Your task to perform on an android device: allow cookies in the chrome app Image 0: 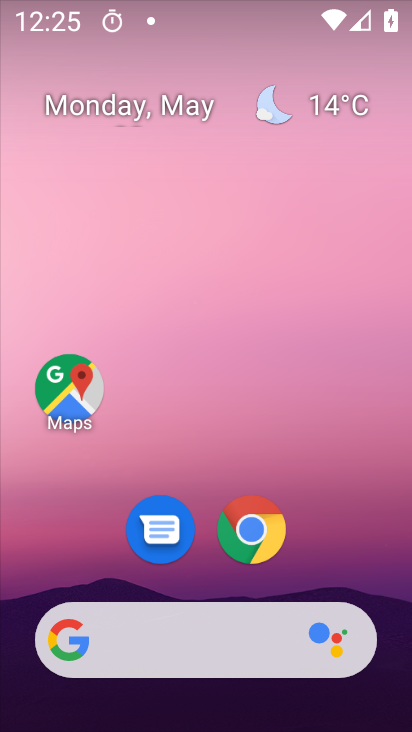
Step 0: drag from (386, 594) to (361, 229)
Your task to perform on an android device: allow cookies in the chrome app Image 1: 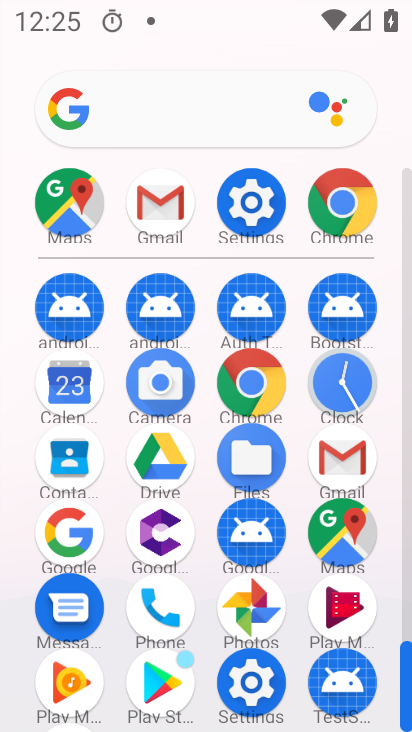
Step 1: click (253, 215)
Your task to perform on an android device: allow cookies in the chrome app Image 2: 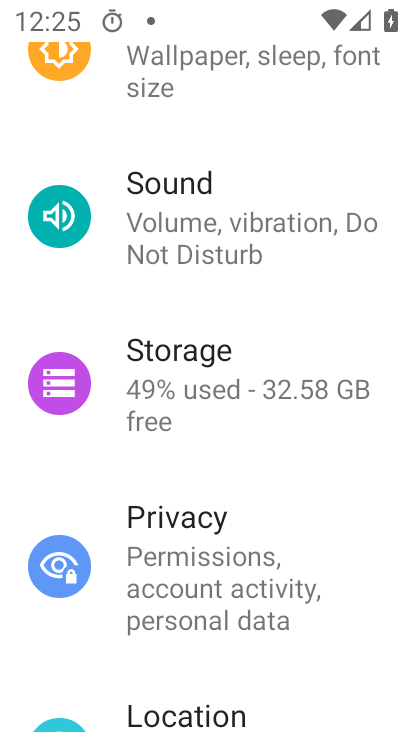
Step 2: drag from (344, 291) to (346, 391)
Your task to perform on an android device: allow cookies in the chrome app Image 3: 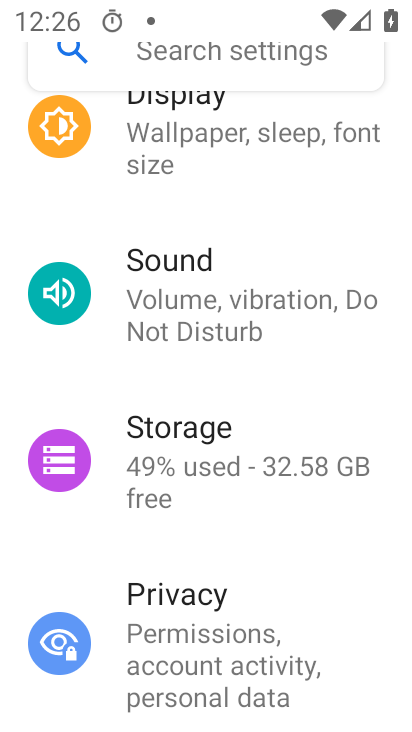
Step 3: drag from (348, 219) to (345, 346)
Your task to perform on an android device: allow cookies in the chrome app Image 4: 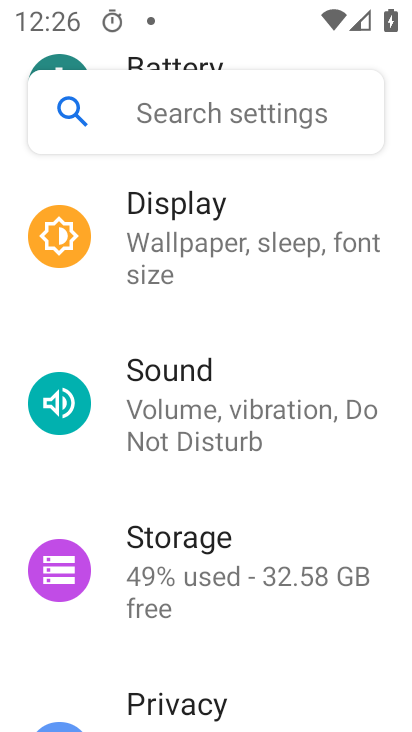
Step 4: drag from (368, 191) to (364, 328)
Your task to perform on an android device: allow cookies in the chrome app Image 5: 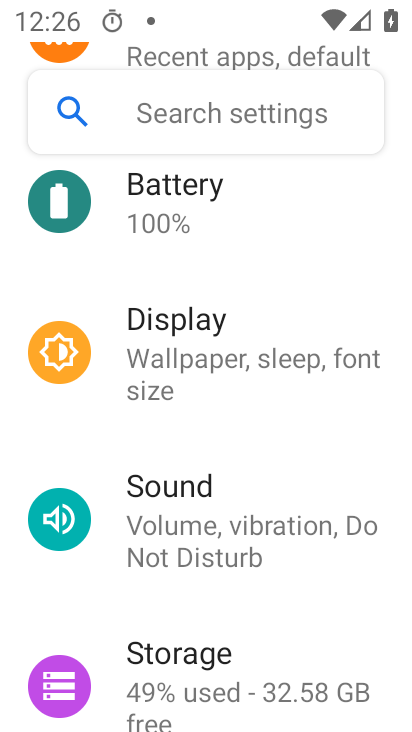
Step 5: drag from (357, 199) to (347, 333)
Your task to perform on an android device: allow cookies in the chrome app Image 6: 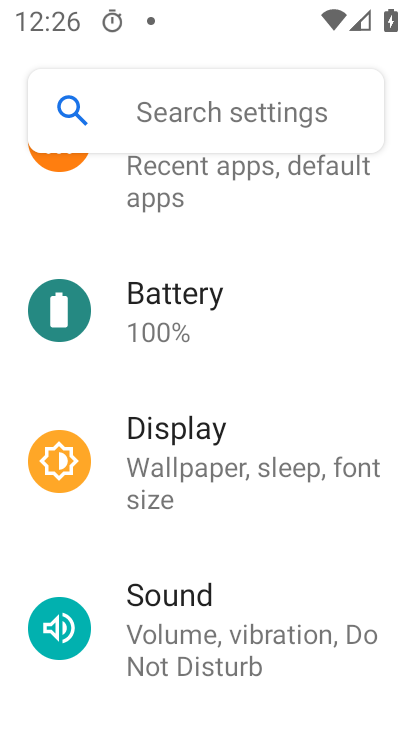
Step 6: press back button
Your task to perform on an android device: allow cookies in the chrome app Image 7: 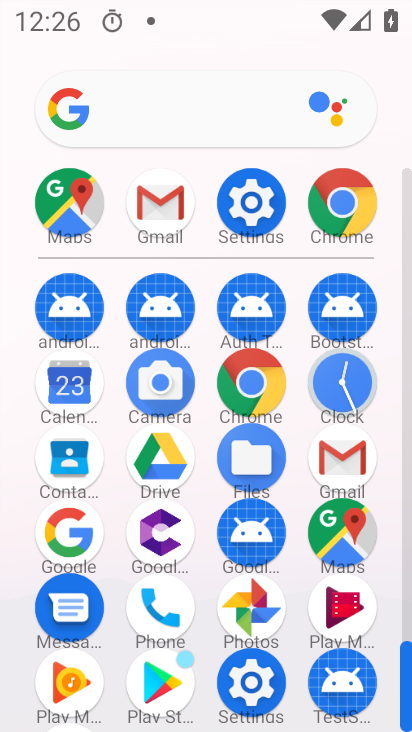
Step 7: click (277, 383)
Your task to perform on an android device: allow cookies in the chrome app Image 8: 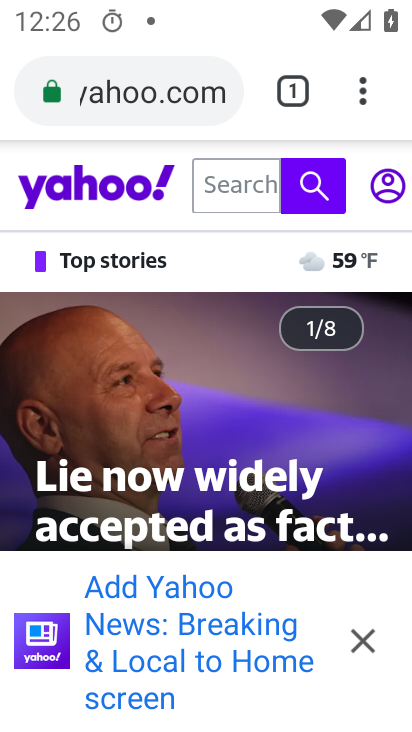
Step 8: click (363, 102)
Your task to perform on an android device: allow cookies in the chrome app Image 9: 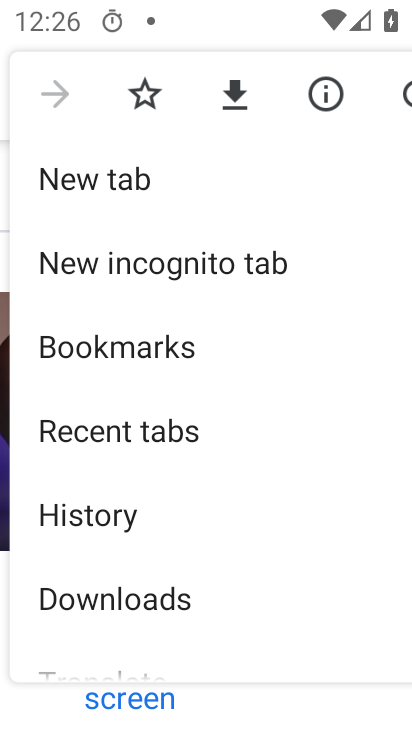
Step 9: drag from (317, 418) to (322, 333)
Your task to perform on an android device: allow cookies in the chrome app Image 10: 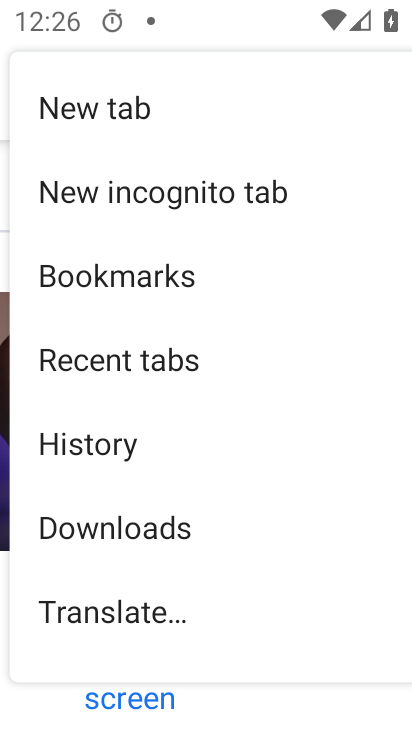
Step 10: drag from (306, 471) to (310, 365)
Your task to perform on an android device: allow cookies in the chrome app Image 11: 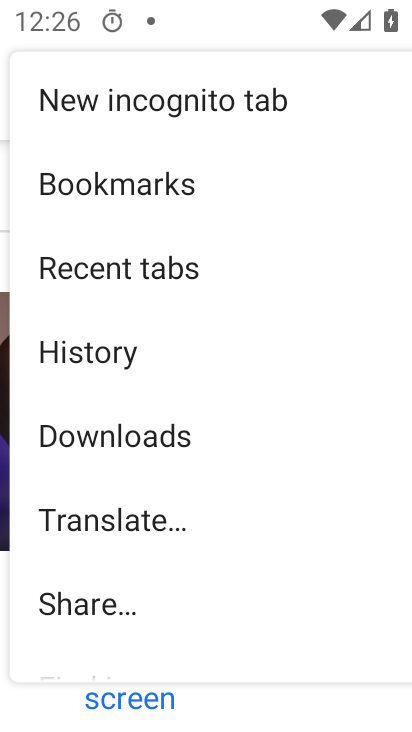
Step 11: drag from (301, 489) to (309, 362)
Your task to perform on an android device: allow cookies in the chrome app Image 12: 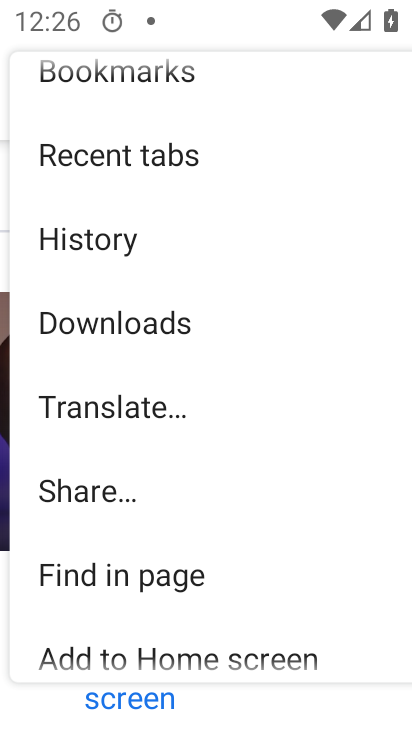
Step 12: drag from (326, 505) to (321, 346)
Your task to perform on an android device: allow cookies in the chrome app Image 13: 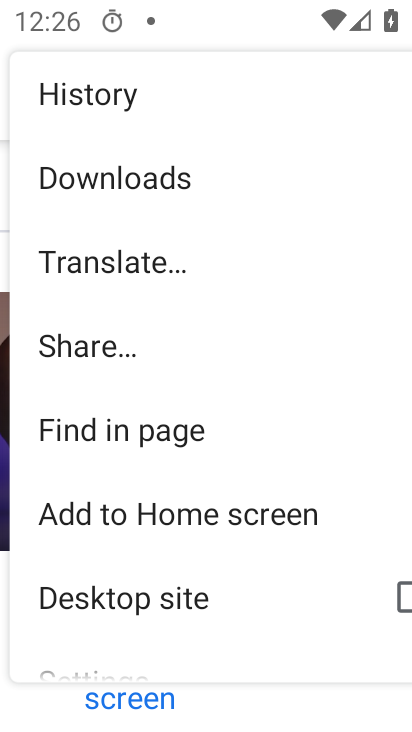
Step 13: drag from (315, 478) to (311, 313)
Your task to perform on an android device: allow cookies in the chrome app Image 14: 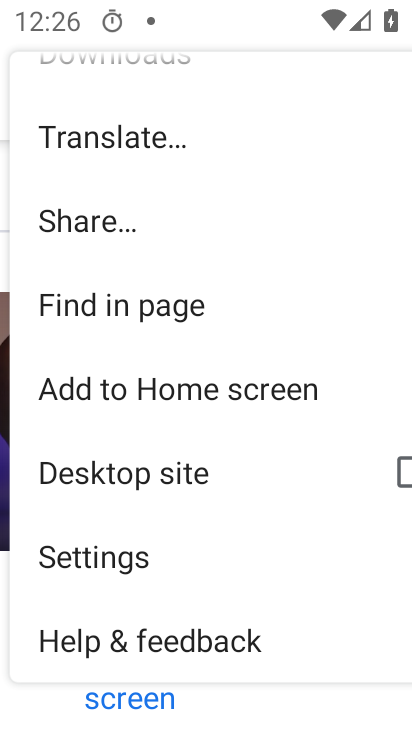
Step 14: click (156, 561)
Your task to perform on an android device: allow cookies in the chrome app Image 15: 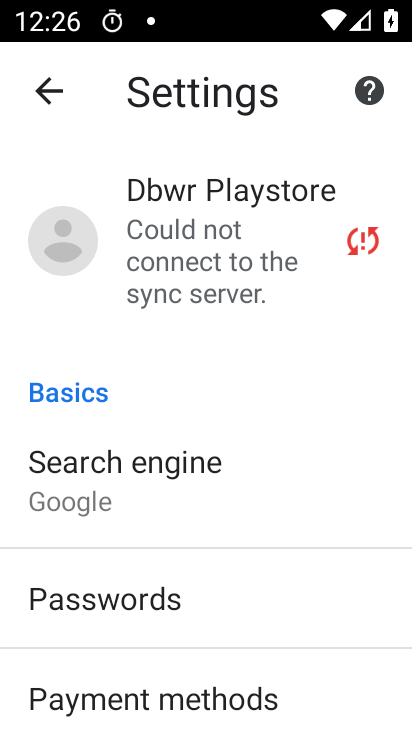
Step 15: drag from (297, 567) to (318, 476)
Your task to perform on an android device: allow cookies in the chrome app Image 16: 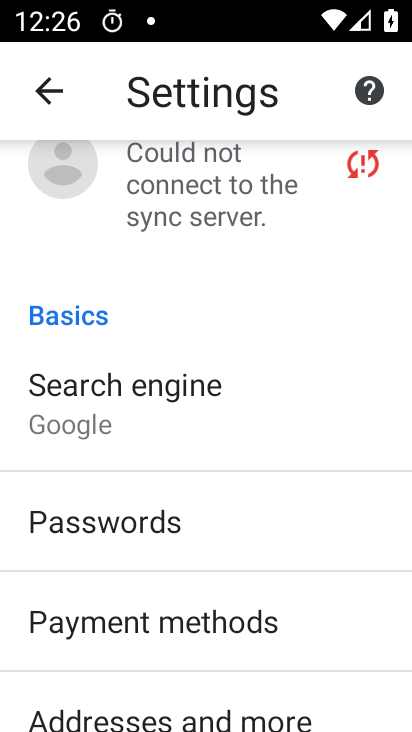
Step 16: drag from (311, 602) to (326, 486)
Your task to perform on an android device: allow cookies in the chrome app Image 17: 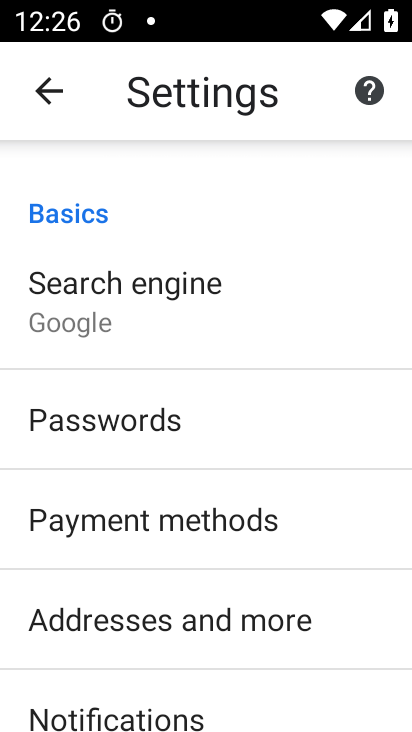
Step 17: drag from (354, 596) to (361, 512)
Your task to perform on an android device: allow cookies in the chrome app Image 18: 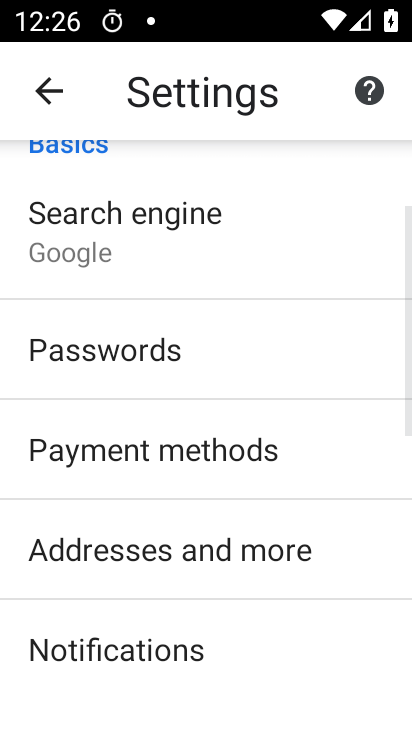
Step 18: drag from (341, 609) to (340, 516)
Your task to perform on an android device: allow cookies in the chrome app Image 19: 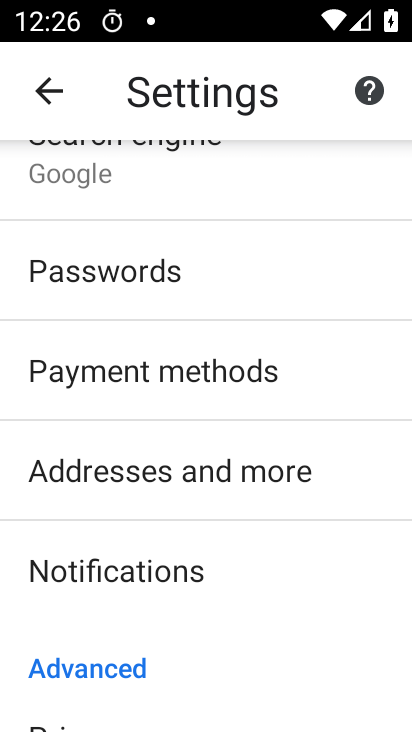
Step 19: drag from (321, 621) to (322, 539)
Your task to perform on an android device: allow cookies in the chrome app Image 20: 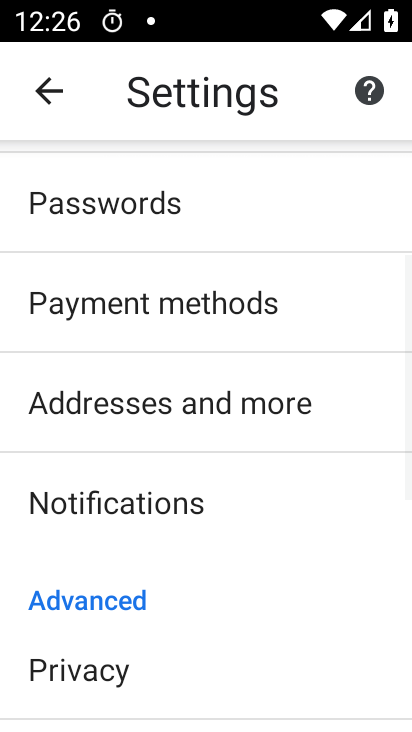
Step 20: drag from (315, 611) to (321, 526)
Your task to perform on an android device: allow cookies in the chrome app Image 21: 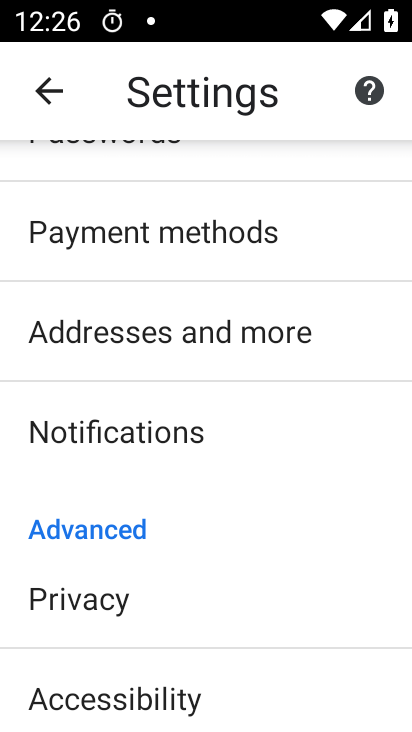
Step 21: drag from (279, 640) to (284, 535)
Your task to perform on an android device: allow cookies in the chrome app Image 22: 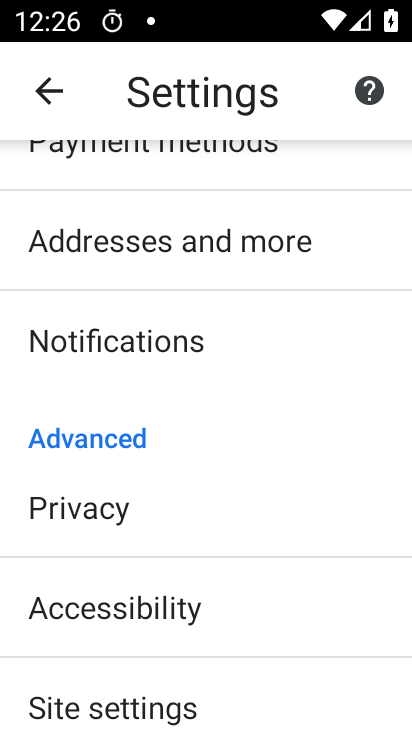
Step 22: drag from (284, 635) to (294, 550)
Your task to perform on an android device: allow cookies in the chrome app Image 23: 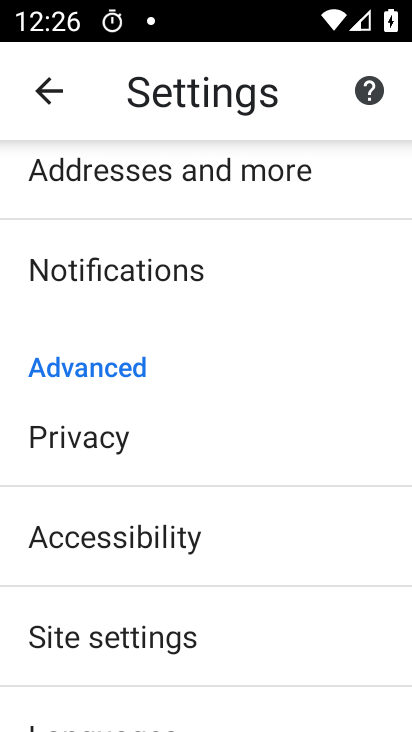
Step 23: drag from (294, 655) to (297, 582)
Your task to perform on an android device: allow cookies in the chrome app Image 24: 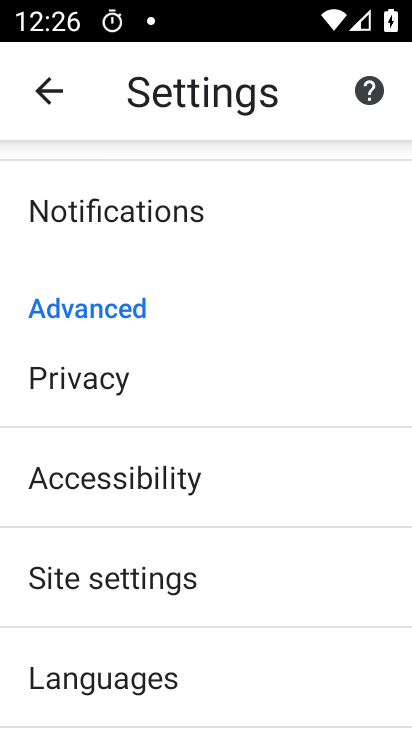
Step 24: drag from (281, 640) to (287, 530)
Your task to perform on an android device: allow cookies in the chrome app Image 25: 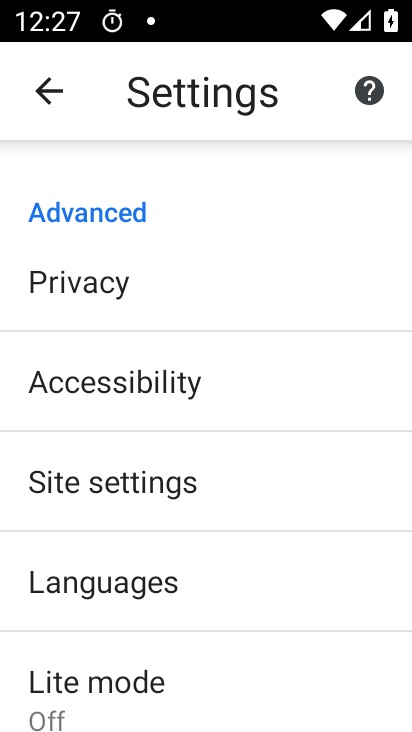
Step 25: click (267, 498)
Your task to perform on an android device: allow cookies in the chrome app Image 26: 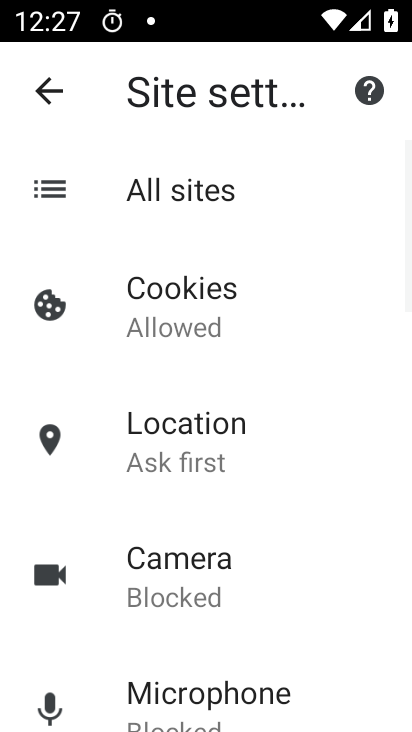
Step 26: click (186, 321)
Your task to perform on an android device: allow cookies in the chrome app Image 27: 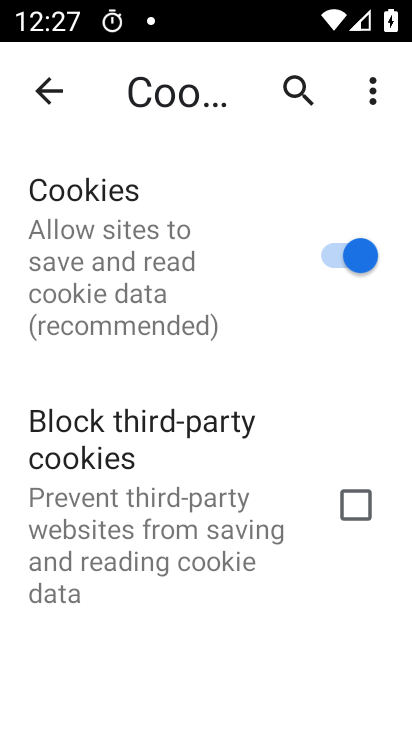
Step 27: task complete